Your task to perform on an android device: check out phone information Image 0: 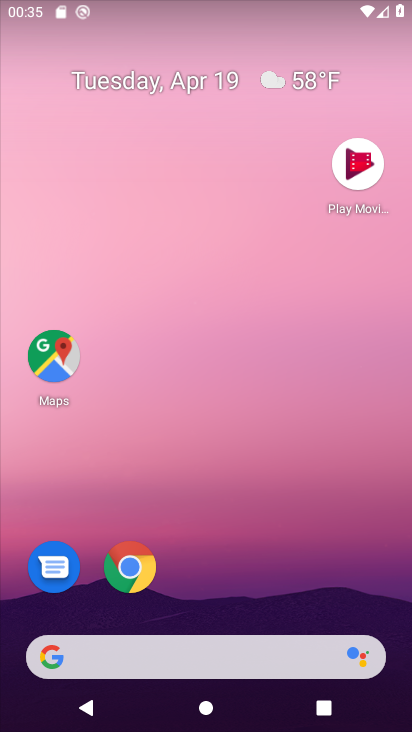
Step 0: drag from (215, 411) to (205, 16)
Your task to perform on an android device: check out phone information Image 1: 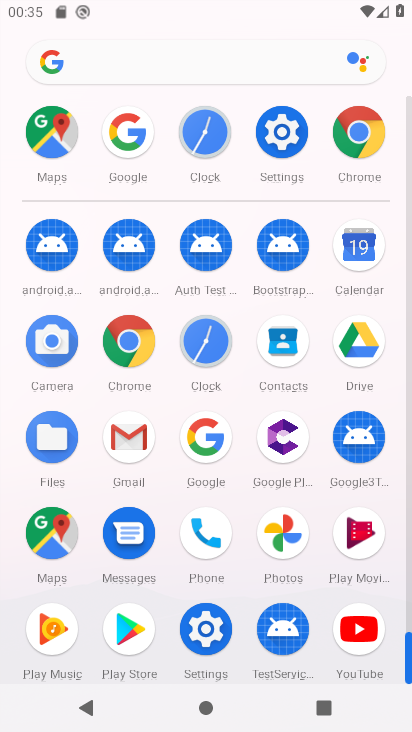
Step 1: click (206, 632)
Your task to perform on an android device: check out phone information Image 2: 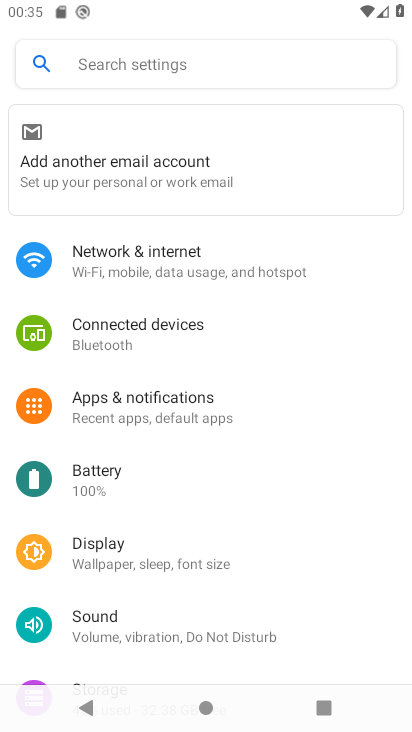
Step 2: drag from (300, 21) to (392, 283)
Your task to perform on an android device: check out phone information Image 3: 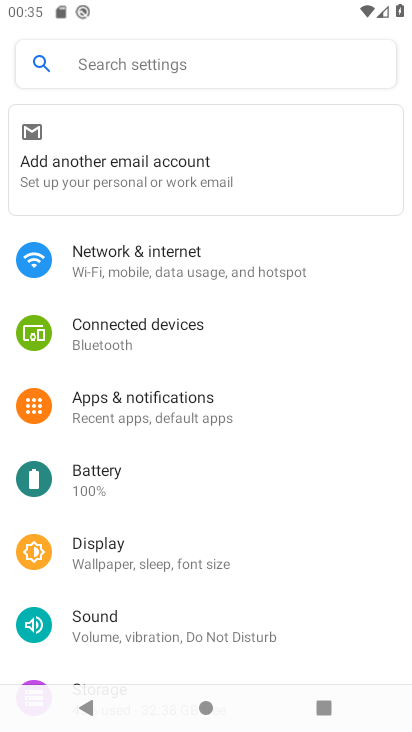
Step 3: drag from (196, 221) to (218, 95)
Your task to perform on an android device: check out phone information Image 4: 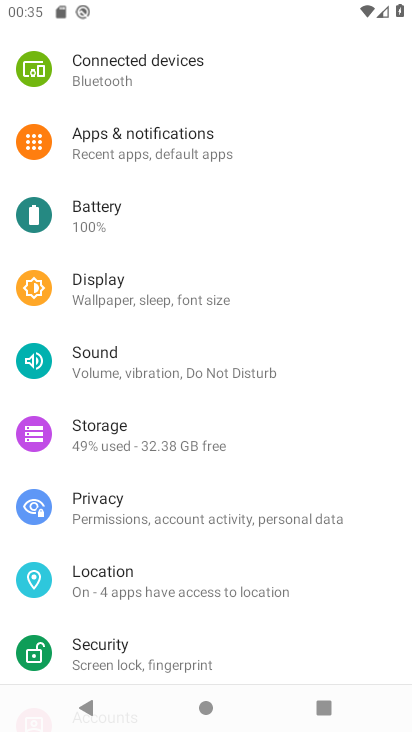
Step 4: drag from (191, 377) to (264, 199)
Your task to perform on an android device: check out phone information Image 5: 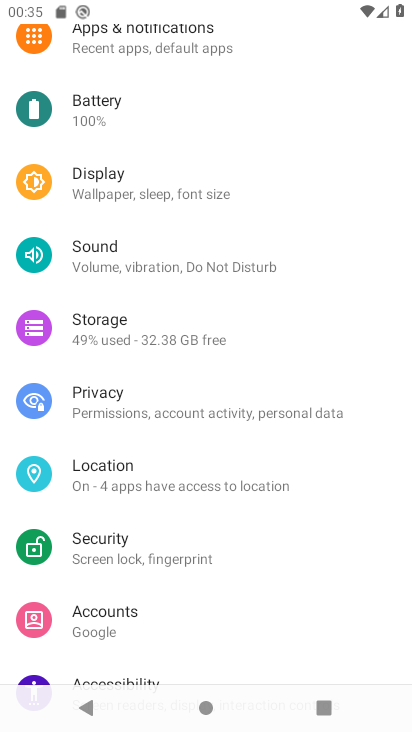
Step 5: drag from (157, 377) to (188, 38)
Your task to perform on an android device: check out phone information Image 6: 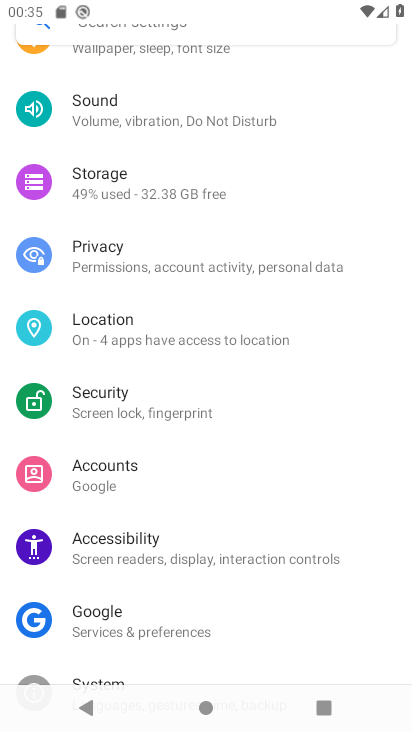
Step 6: drag from (203, 473) to (212, 88)
Your task to perform on an android device: check out phone information Image 7: 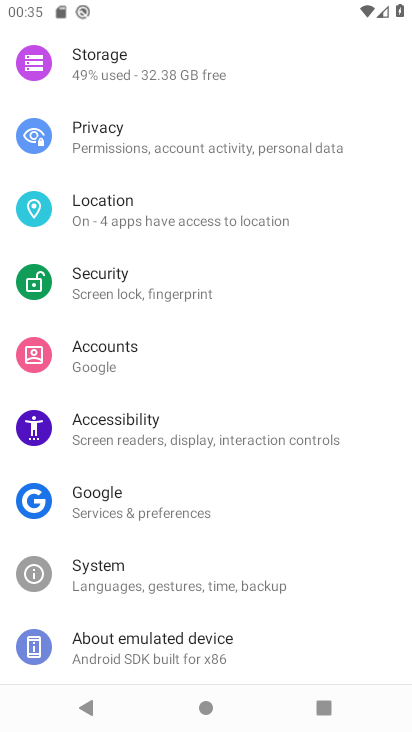
Step 7: click (165, 637)
Your task to perform on an android device: check out phone information Image 8: 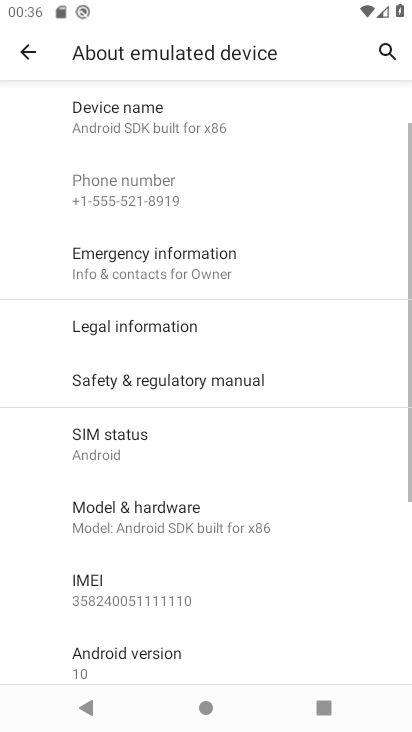
Step 8: task complete